Your task to perform on an android device: clear all cookies in the chrome app Image 0: 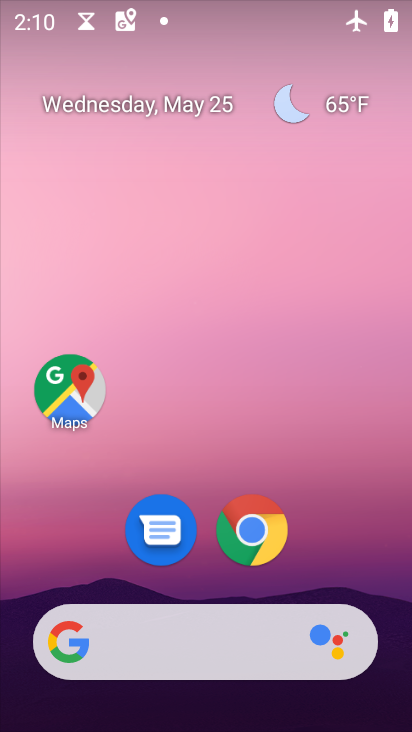
Step 0: click (267, 525)
Your task to perform on an android device: clear all cookies in the chrome app Image 1: 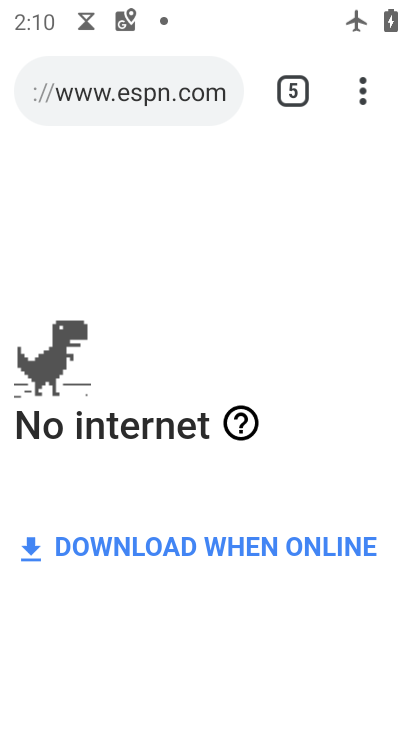
Step 1: click (364, 90)
Your task to perform on an android device: clear all cookies in the chrome app Image 2: 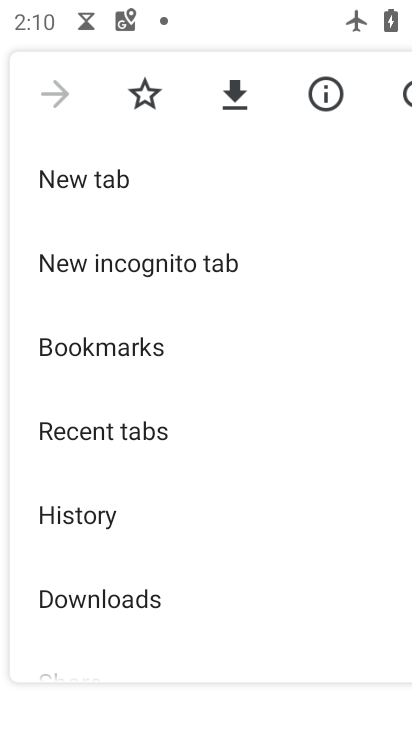
Step 2: drag from (220, 594) to (227, 221)
Your task to perform on an android device: clear all cookies in the chrome app Image 3: 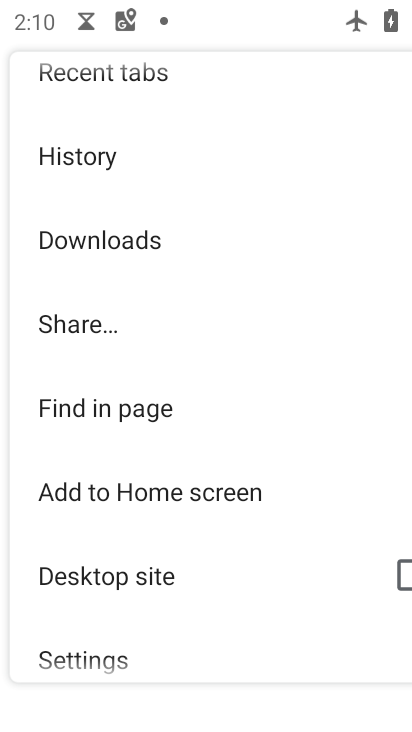
Step 3: click (130, 639)
Your task to perform on an android device: clear all cookies in the chrome app Image 4: 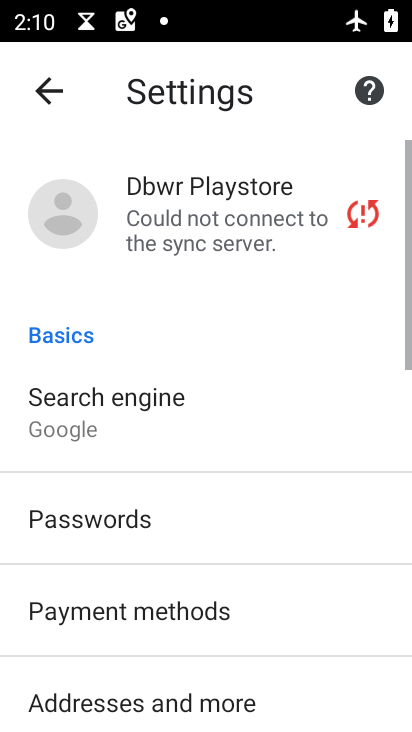
Step 4: drag from (171, 601) to (194, 227)
Your task to perform on an android device: clear all cookies in the chrome app Image 5: 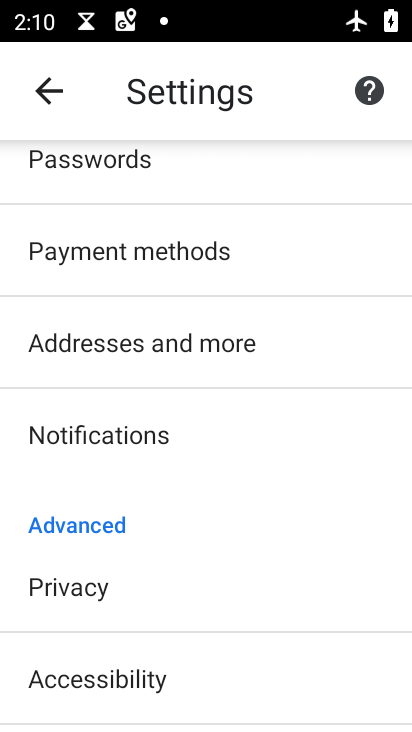
Step 5: drag from (147, 629) to (201, 307)
Your task to perform on an android device: clear all cookies in the chrome app Image 6: 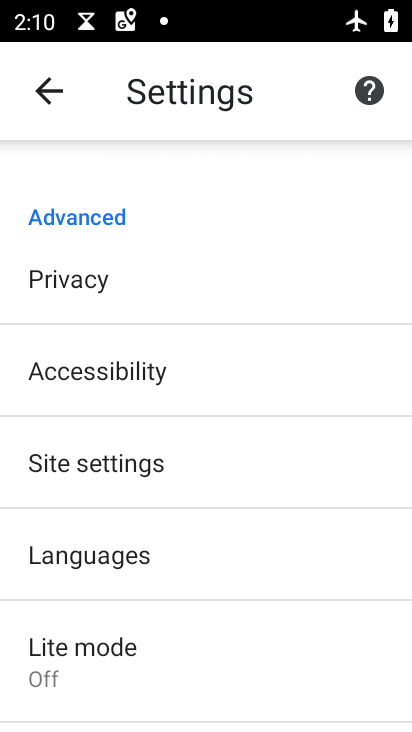
Step 6: click (104, 275)
Your task to perform on an android device: clear all cookies in the chrome app Image 7: 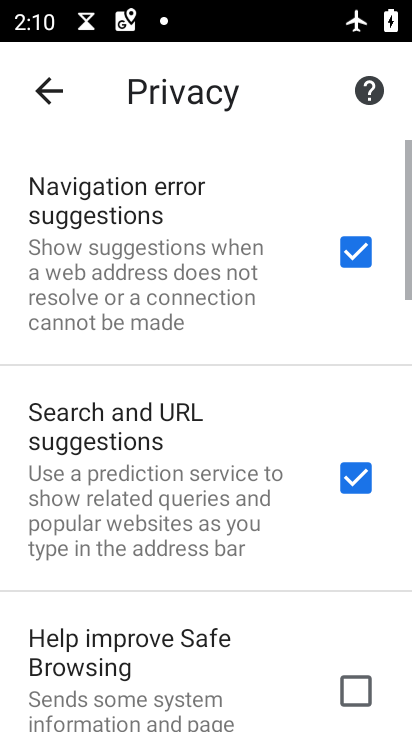
Step 7: drag from (211, 602) to (205, 208)
Your task to perform on an android device: clear all cookies in the chrome app Image 8: 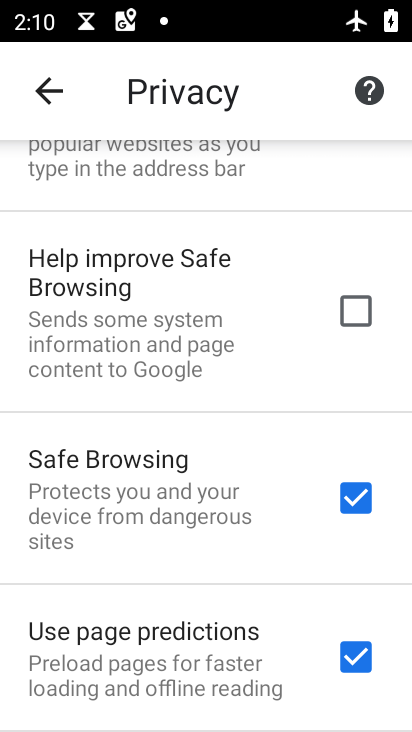
Step 8: drag from (222, 677) to (223, 207)
Your task to perform on an android device: clear all cookies in the chrome app Image 9: 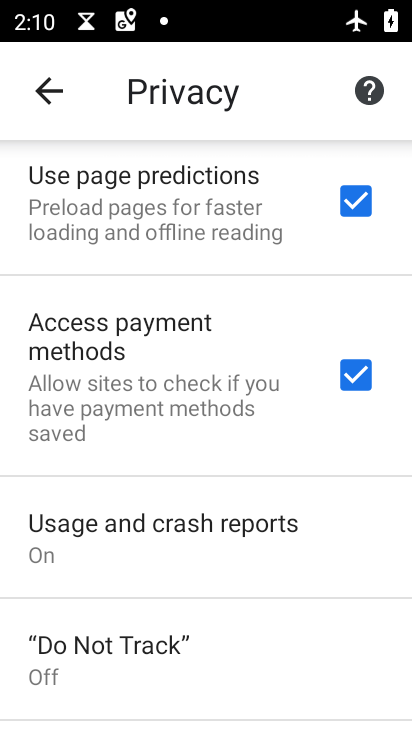
Step 9: drag from (209, 622) to (217, 194)
Your task to perform on an android device: clear all cookies in the chrome app Image 10: 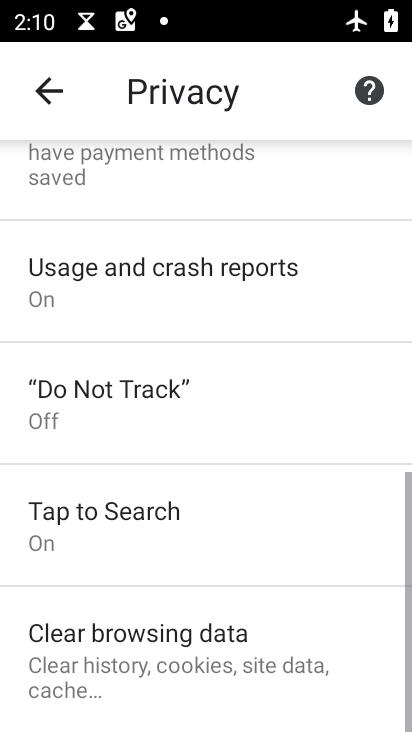
Step 10: click (224, 656)
Your task to perform on an android device: clear all cookies in the chrome app Image 11: 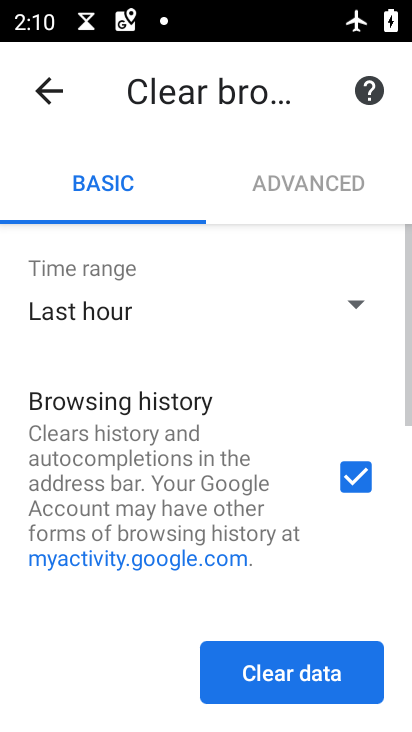
Step 11: drag from (161, 379) to (154, 633)
Your task to perform on an android device: clear all cookies in the chrome app Image 12: 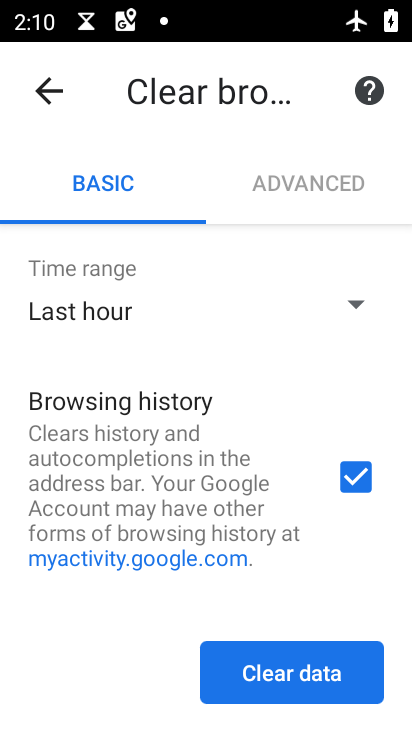
Step 12: drag from (147, 563) to (142, 232)
Your task to perform on an android device: clear all cookies in the chrome app Image 13: 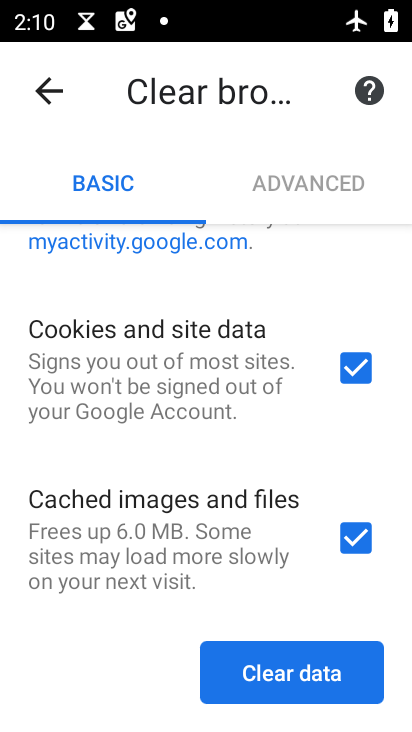
Step 13: drag from (179, 475) to (200, 268)
Your task to perform on an android device: clear all cookies in the chrome app Image 14: 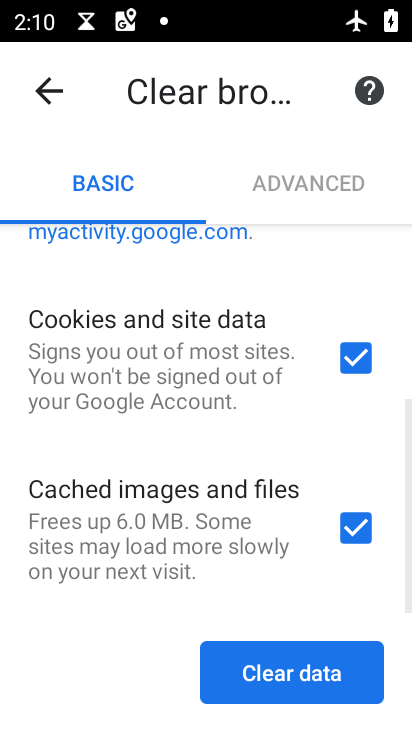
Step 14: click (198, 393)
Your task to perform on an android device: clear all cookies in the chrome app Image 15: 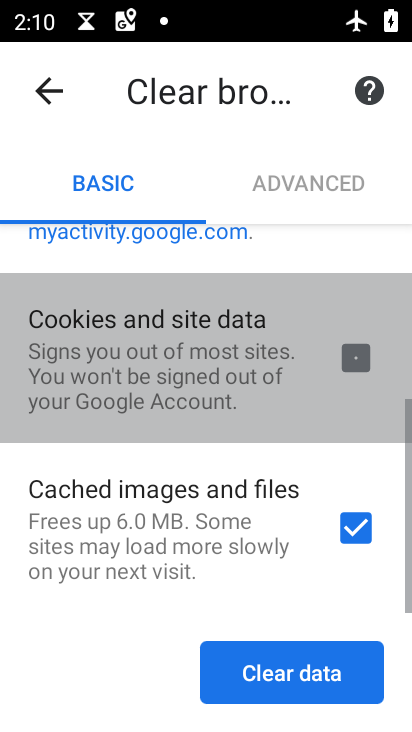
Step 15: click (344, 346)
Your task to perform on an android device: clear all cookies in the chrome app Image 16: 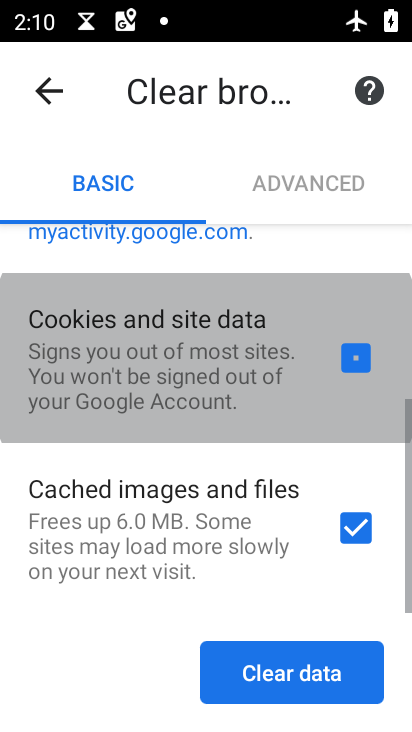
Step 16: click (343, 348)
Your task to perform on an android device: clear all cookies in the chrome app Image 17: 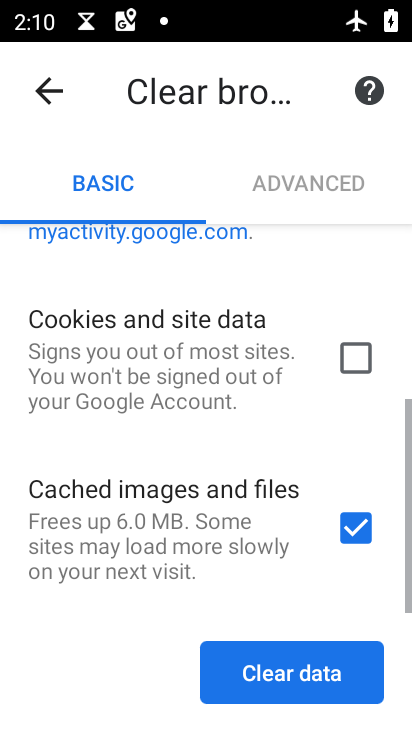
Step 17: click (364, 504)
Your task to perform on an android device: clear all cookies in the chrome app Image 18: 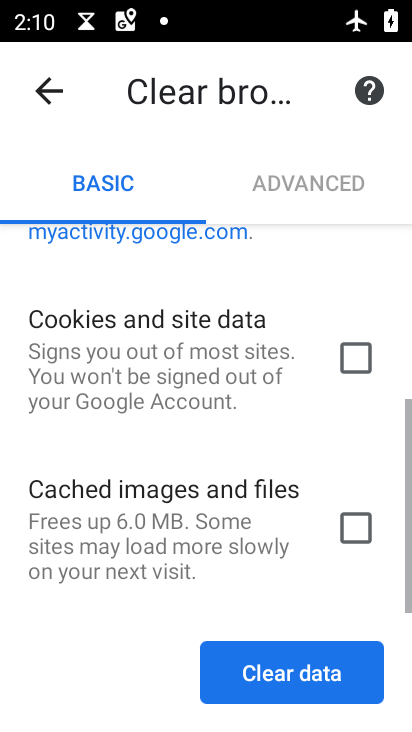
Step 18: drag from (134, 345) to (170, 547)
Your task to perform on an android device: clear all cookies in the chrome app Image 19: 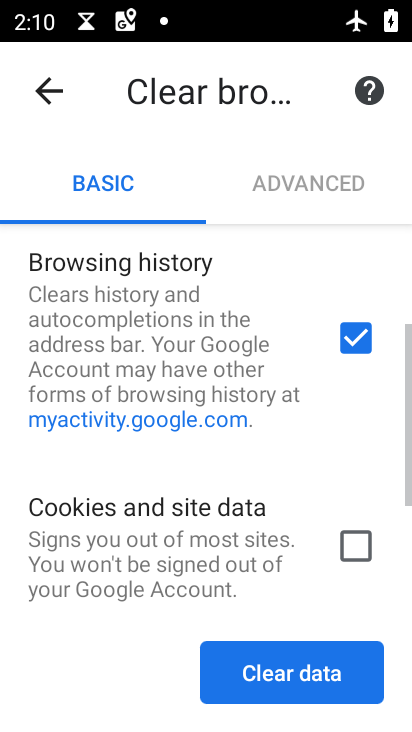
Step 19: click (359, 359)
Your task to perform on an android device: clear all cookies in the chrome app Image 20: 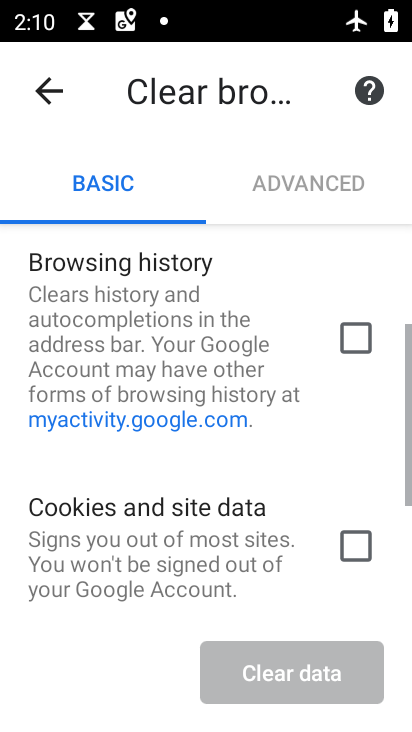
Step 20: drag from (214, 584) to (254, 259)
Your task to perform on an android device: clear all cookies in the chrome app Image 21: 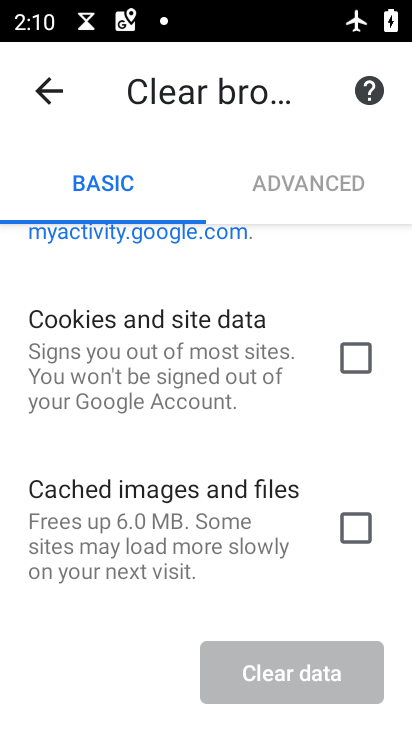
Step 21: click (346, 536)
Your task to perform on an android device: clear all cookies in the chrome app Image 22: 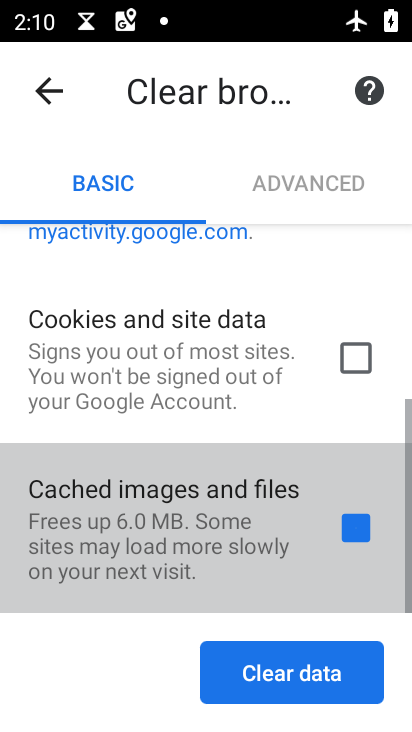
Step 22: click (344, 358)
Your task to perform on an android device: clear all cookies in the chrome app Image 23: 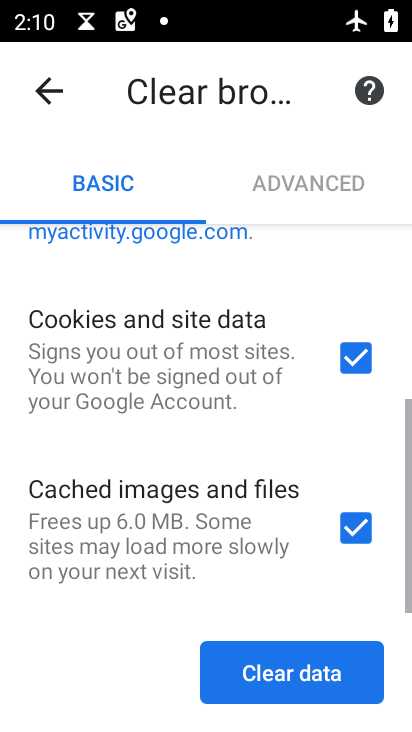
Step 23: click (251, 658)
Your task to perform on an android device: clear all cookies in the chrome app Image 24: 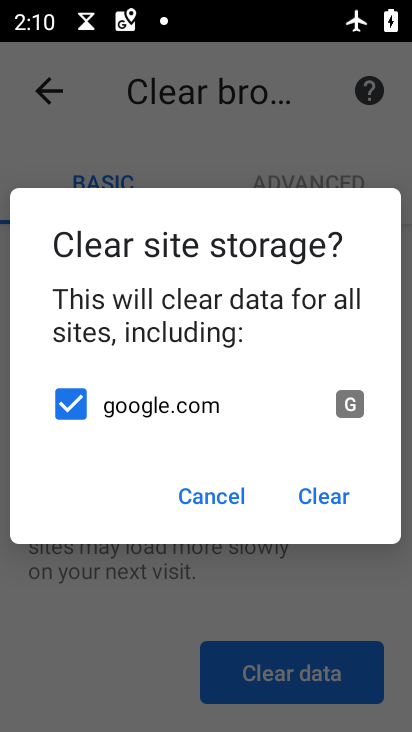
Step 24: click (331, 476)
Your task to perform on an android device: clear all cookies in the chrome app Image 25: 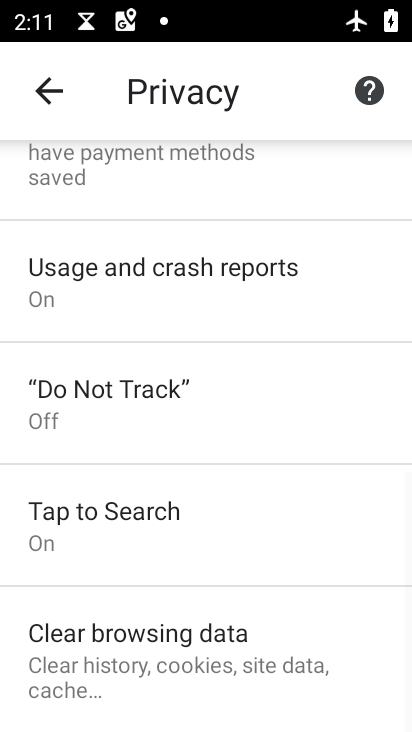
Step 25: task complete